Your task to perform on an android device: Open the phone app and click the voicemail tab. Image 0: 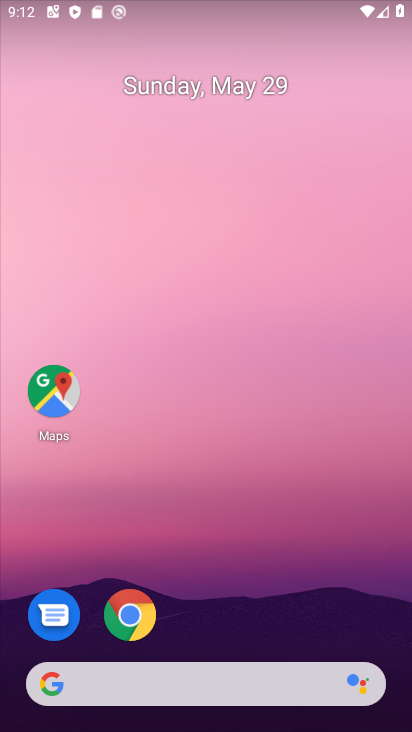
Step 0: drag from (259, 628) to (338, 0)
Your task to perform on an android device: Open the phone app and click the voicemail tab. Image 1: 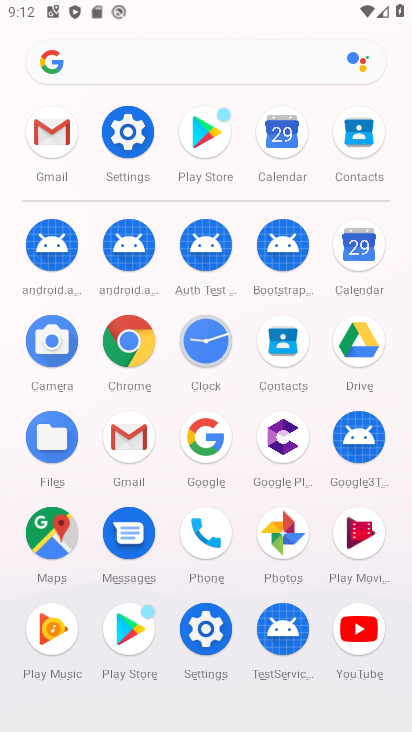
Step 1: click (200, 522)
Your task to perform on an android device: Open the phone app and click the voicemail tab. Image 2: 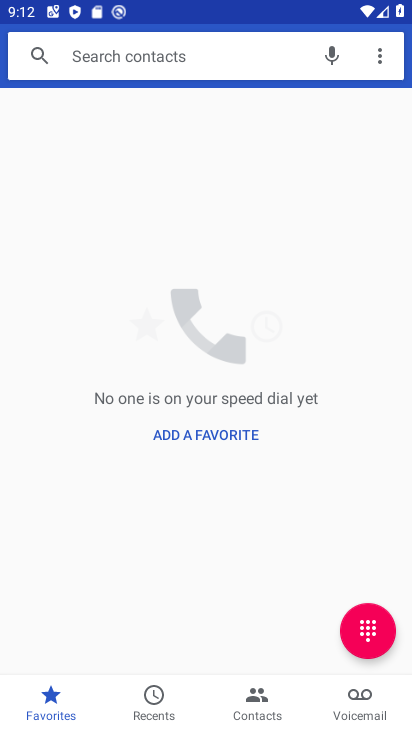
Step 2: click (374, 707)
Your task to perform on an android device: Open the phone app and click the voicemail tab. Image 3: 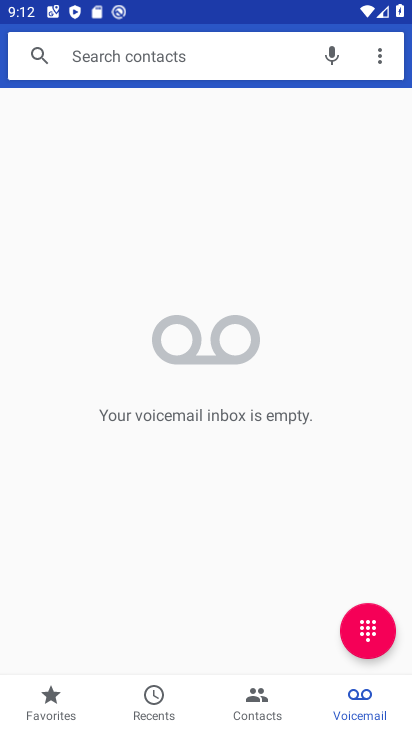
Step 3: task complete